Your task to perform on an android device: Show me the alarms in the clock app Image 0: 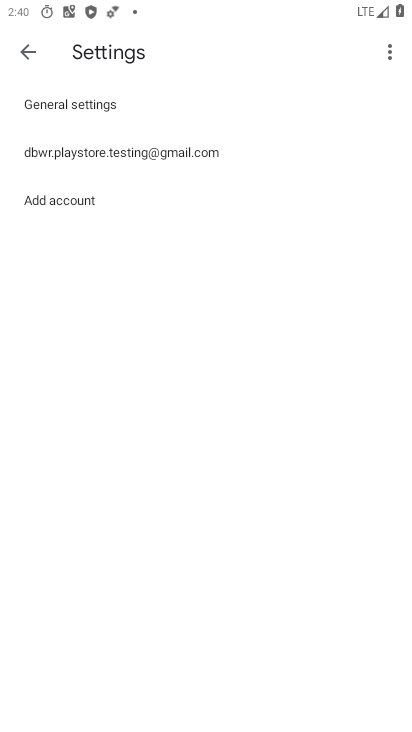
Step 0: click (33, 45)
Your task to perform on an android device: Show me the alarms in the clock app Image 1: 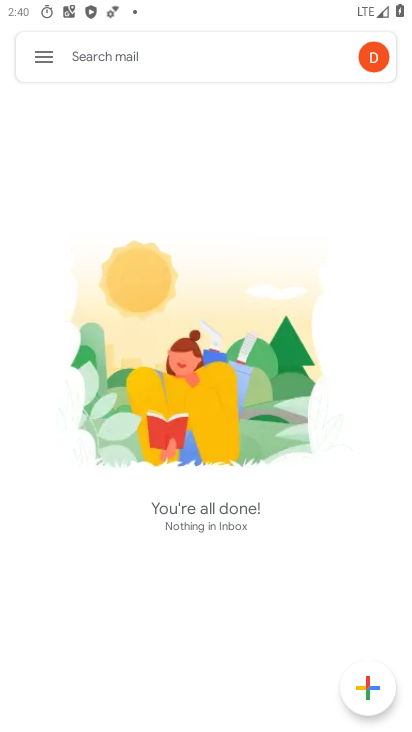
Step 1: press home button
Your task to perform on an android device: Show me the alarms in the clock app Image 2: 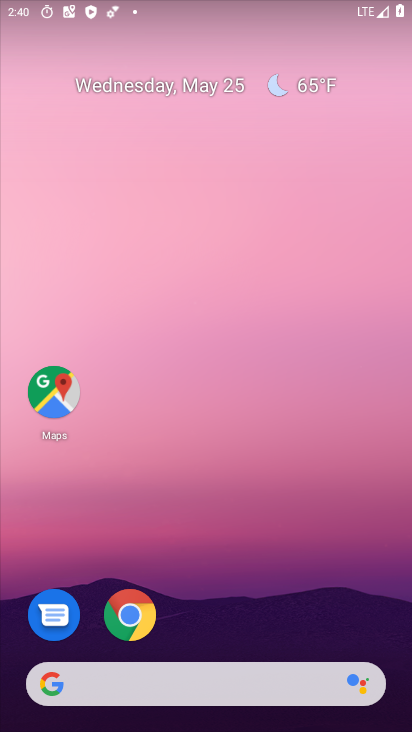
Step 2: drag from (396, 696) to (388, 172)
Your task to perform on an android device: Show me the alarms in the clock app Image 3: 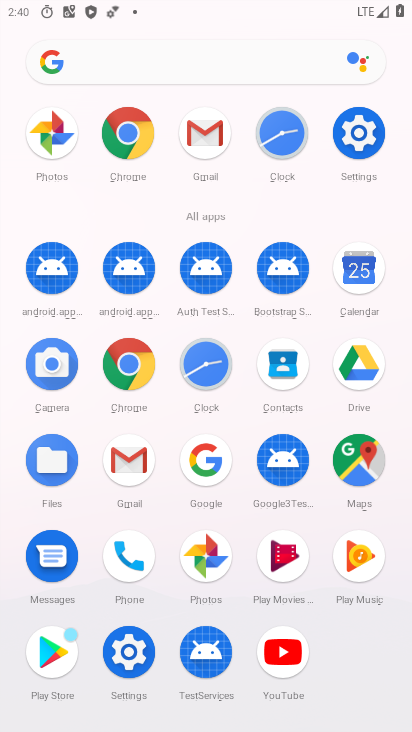
Step 3: click (290, 143)
Your task to perform on an android device: Show me the alarms in the clock app Image 4: 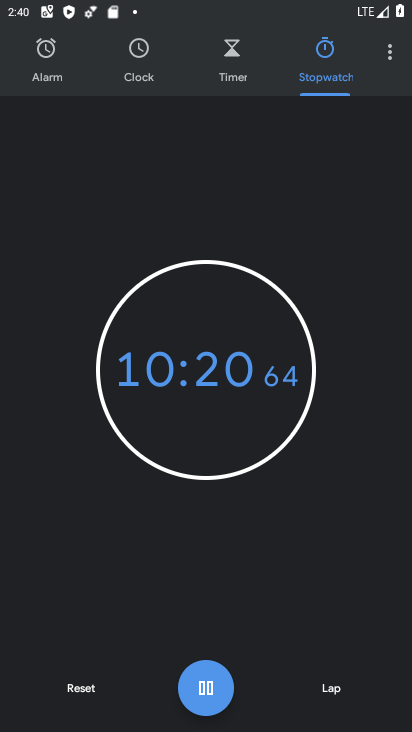
Step 4: click (42, 60)
Your task to perform on an android device: Show me the alarms in the clock app Image 5: 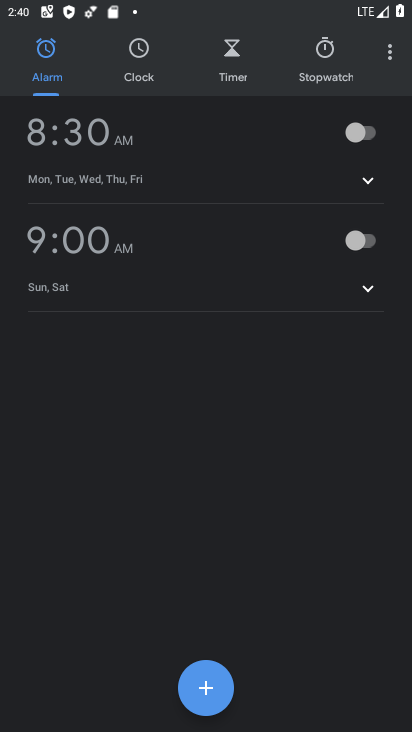
Step 5: task complete